Your task to perform on an android device: Search for Italian restaurants on Maps Image 0: 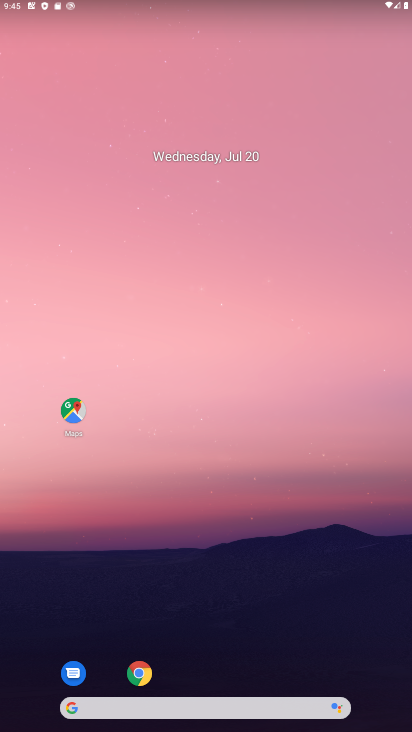
Step 0: click (73, 414)
Your task to perform on an android device: Search for Italian restaurants on Maps Image 1: 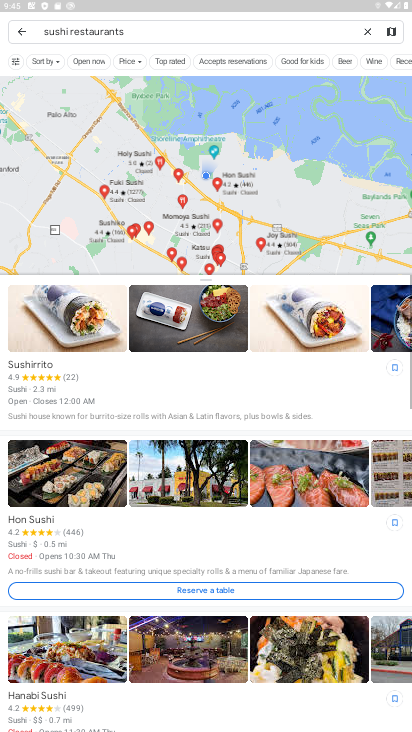
Step 1: click (370, 33)
Your task to perform on an android device: Search for Italian restaurants on Maps Image 2: 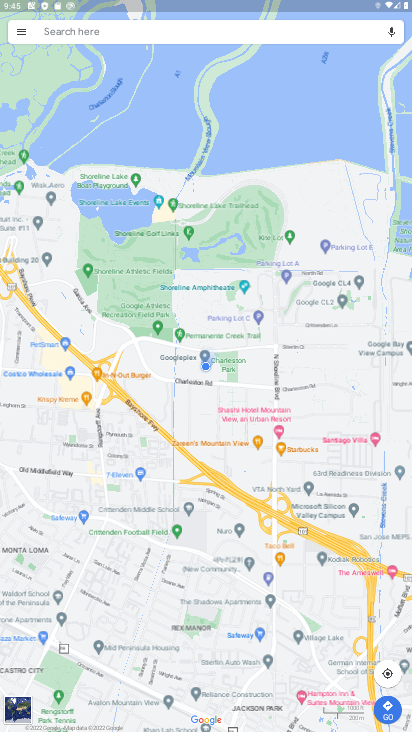
Step 2: click (251, 26)
Your task to perform on an android device: Search for Italian restaurants on Maps Image 3: 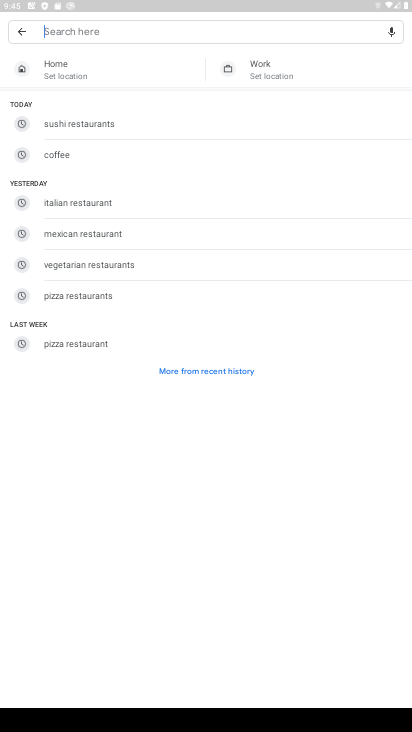
Step 3: type "Italian restaurants"
Your task to perform on an android device: Search for Italian restaurants on Maps Image 4: 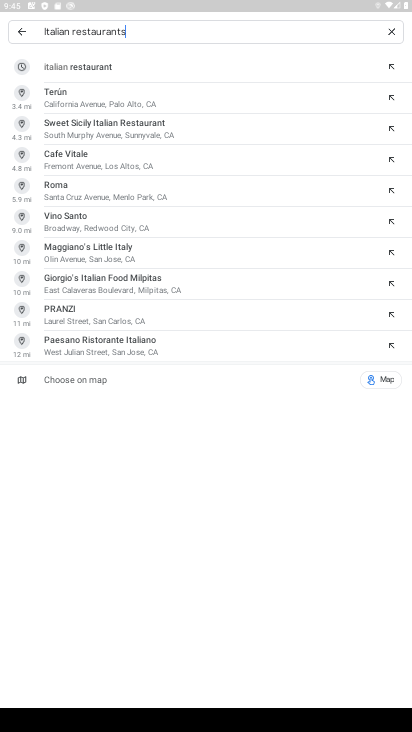
Step 4: click (111, 63)
Your task to perform on an android device: Search for Italian restaurants on Maps Image 5: 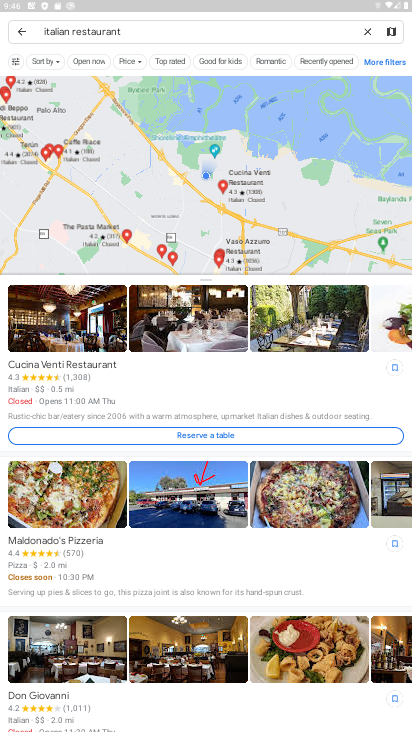
Step 5: task complete